Your task to perform on an android device: Open ESPN.com Image 0: 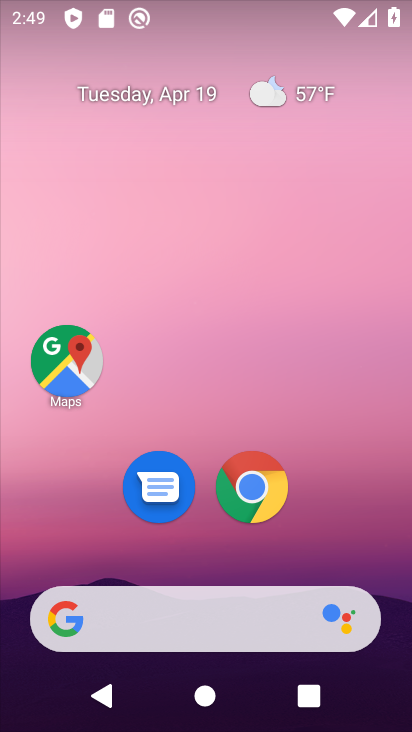
Step 0: drag from (388, 538) to (364, 163)
Your task to perform on an android device: Open ESPN.com Image 1: 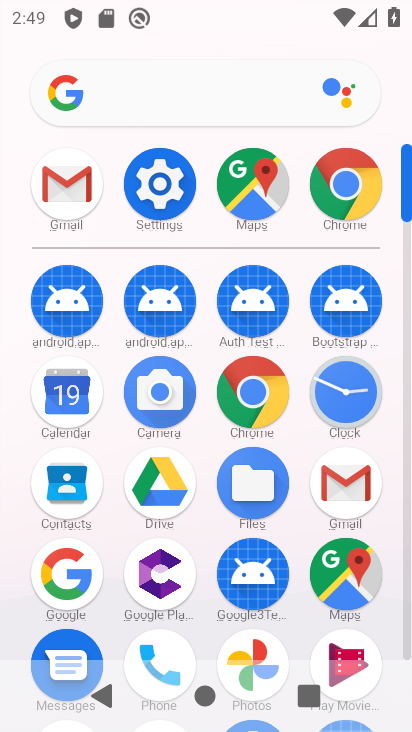
Step 1: click (269, 380)
Your task to perform on an android device: Open ESPN.com Image 2: 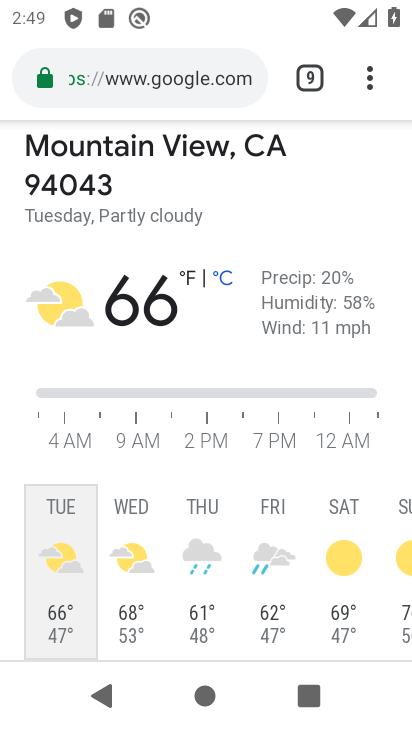
Step 2: click (306, 78)
Your task to perform on an android device: Open ESPN.com Image 3: 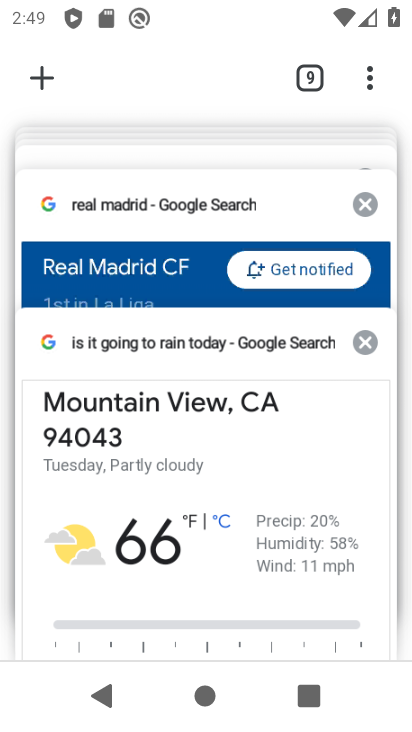
Step 3: click (40, 88)
Your task to perform on an android device: Open ESPN.com Image 4: 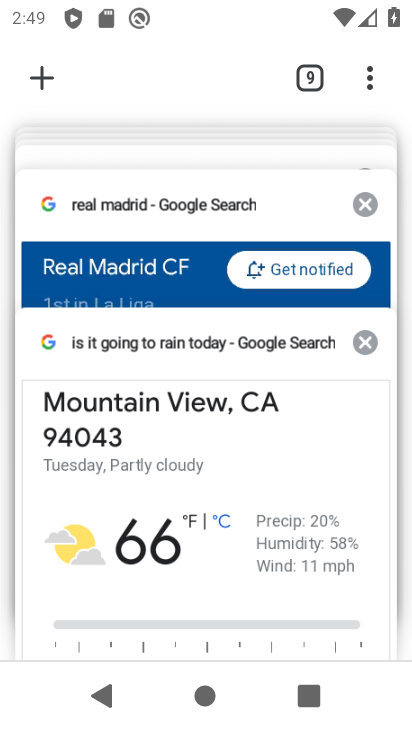
Step 4: click (87, 149)
Your task to perform on an android device: Open ESPN.com Image 5: 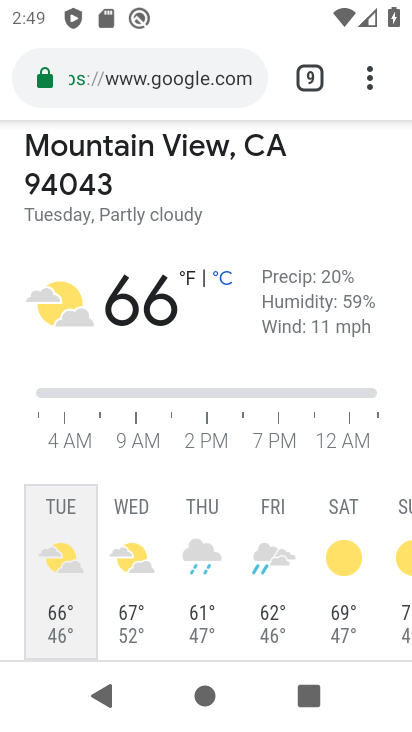
Step 5: click (314, 75)
Your task to perform on an android device: Open ESPN.com Image 6: 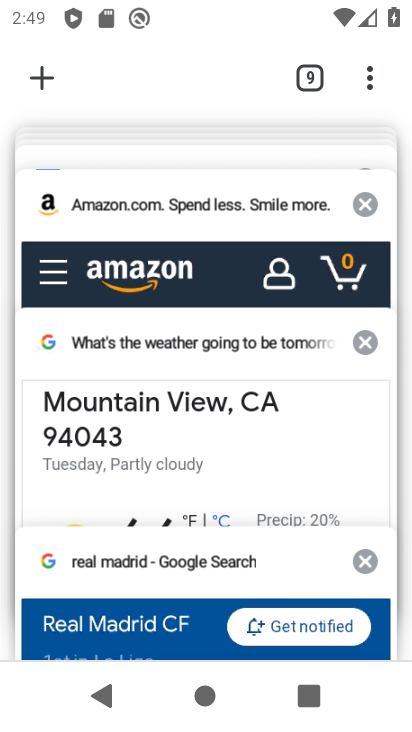
Step 6: click (46, 74)
Your task to perform on an android device: Open ESPN.com Image 7: 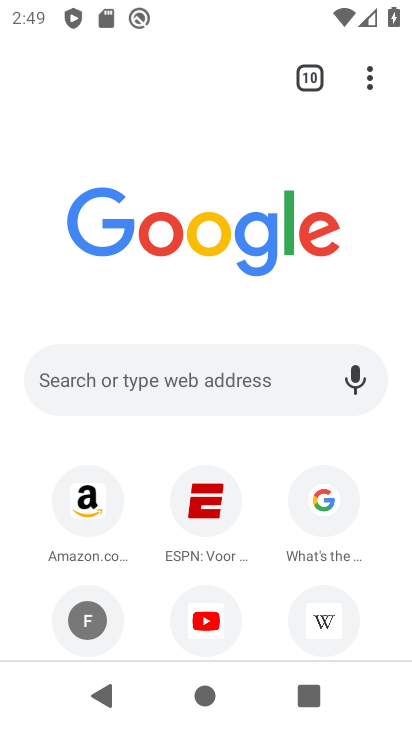
Step 7: click (174, 367)
Your task to perform on an android device: Open ESPN.com Image 8: 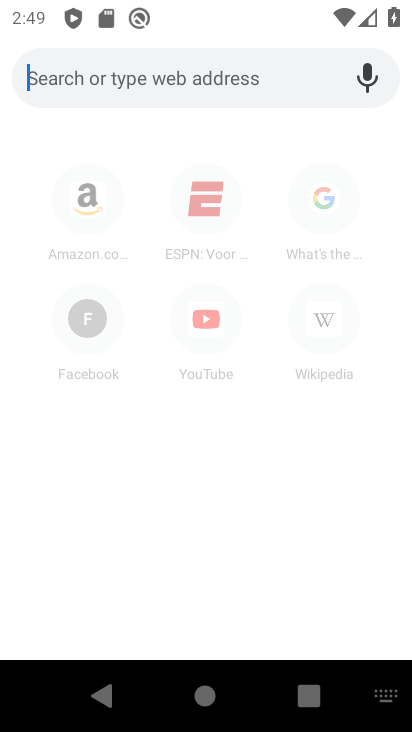
Step 8: type "espn.com"
Your task to perform on an android device: Open ESPN.com Image 9: 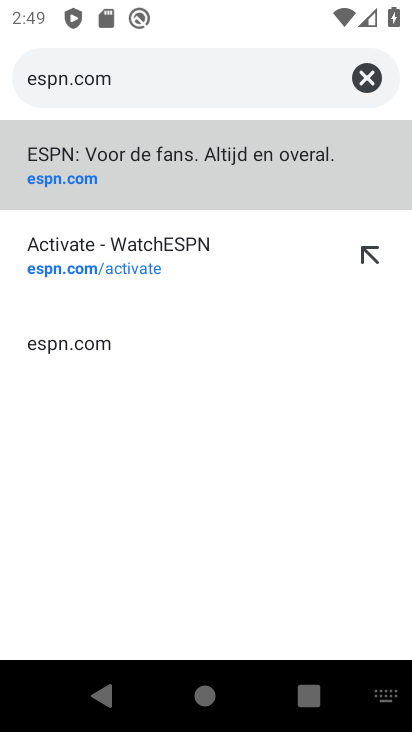
Step 9: click (94, 166)
Your task to perform on an android device: Open ESPN.com Image 10: 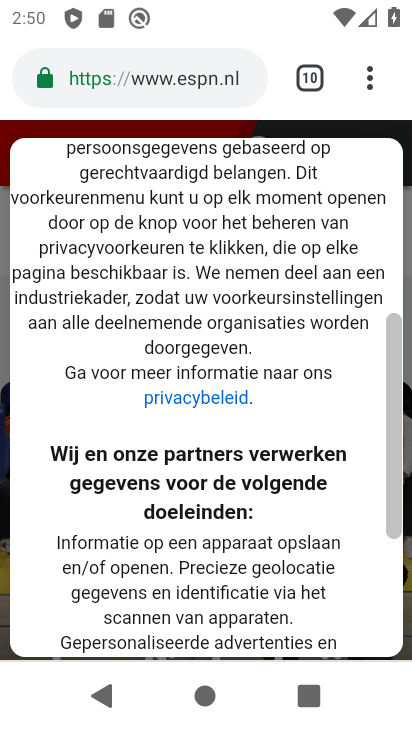
Step 10: task complete